Your task to perform on an android device: set default search engine in the chrome app Image 0: 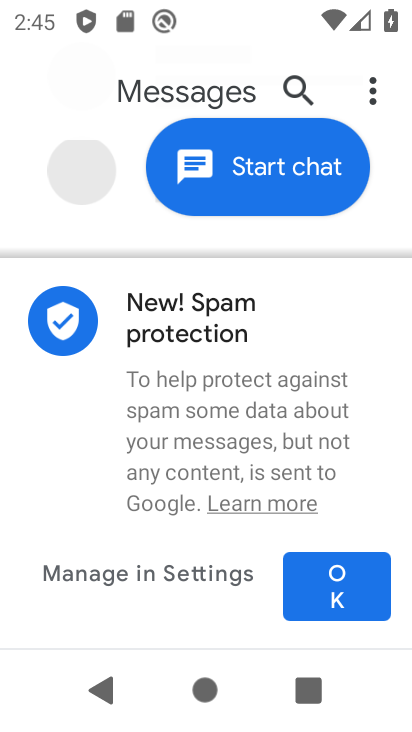
Step 0: press home button
Your task to perform on an android device: set default search engine in the chrome app Image 1: 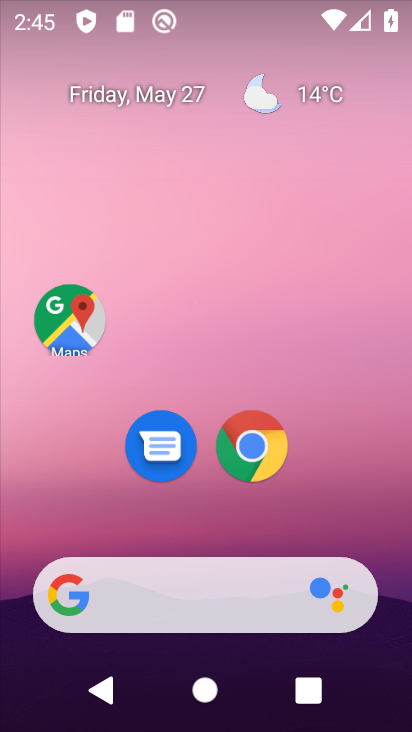
Step 1: click (253, 449)
Your task to perform on an android device: set default search engine in the chrome app Image 2: 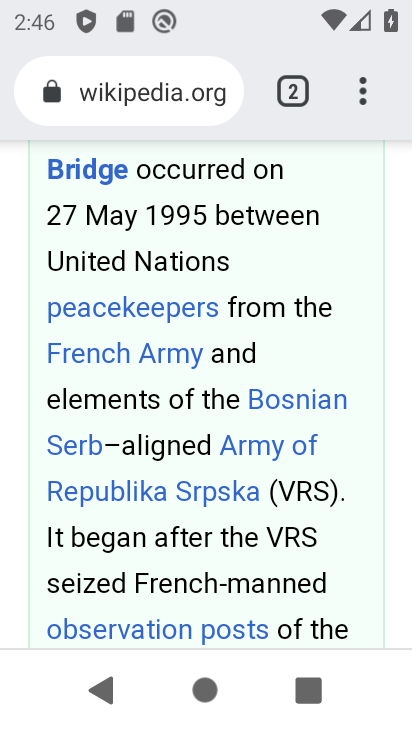
Step 2: drag from (357, 101) to (200, 487)
Your task to perform on an android device: set default search engine in the chrome app Image 3: 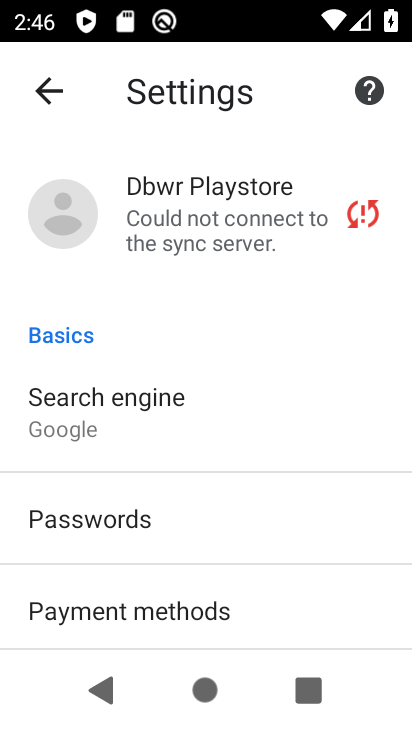
Step 3: click (132, 421)
Your task to perform on an android device: set default search engine in the chrome app Image 4: 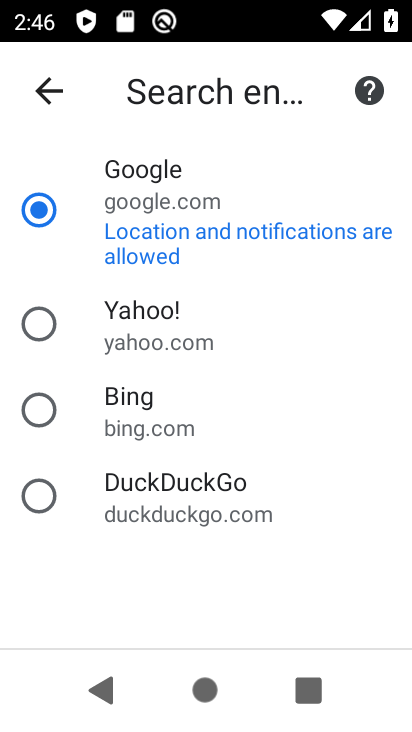
Step 4: click (41, 321)
Your task to perform on an android device: set default search engine in the chrome app Image 5: 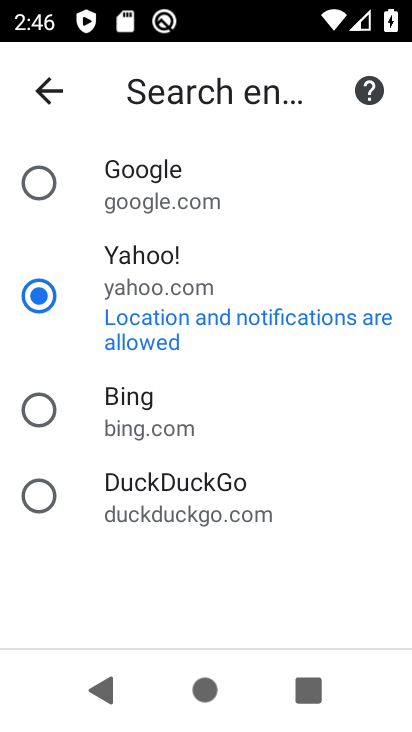
Step 5: task complete